Your task to perform on an android device: Add "usb-c to usb-a" to the cart on costco Image 0: 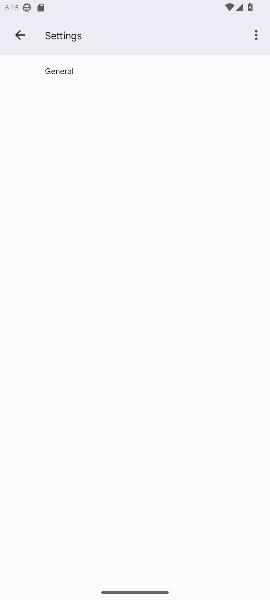
Step 0: press home button
Your task to perform on an android device: Add "usb-c to usb-a" to the cart on costco Image 1: 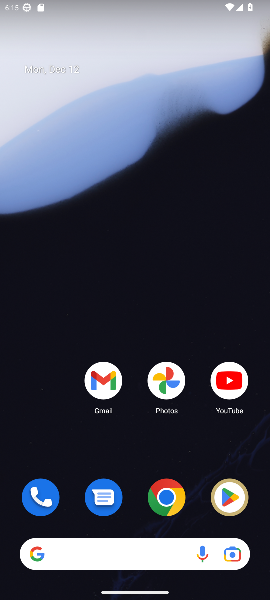
Step 1: drag from (65, 454) to (66, 98)
Your task to perform on an android device: Add "usb-c to usb-a" to the cart on costco Image 2: 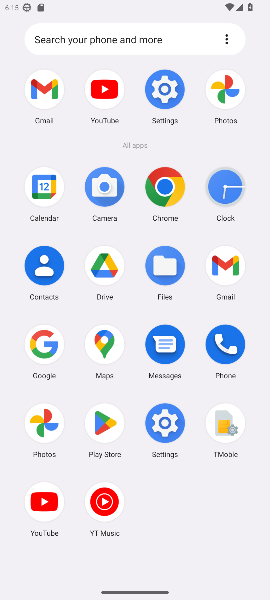
Step 2: click (36, 348)
Your task to perform on an android device: Add "usb-c to usb-a" to the cart on costco Image 3: 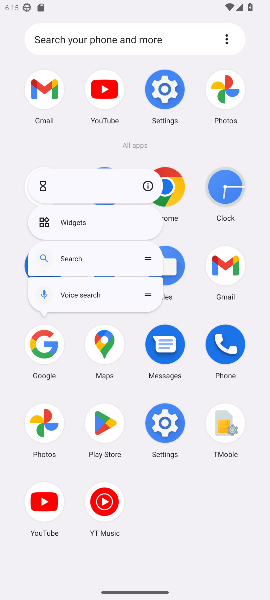
Step 3: click (45, 335)
Your task to perform on an android device: Add "usb-c to usb-a" to the cart on costco Image 4: 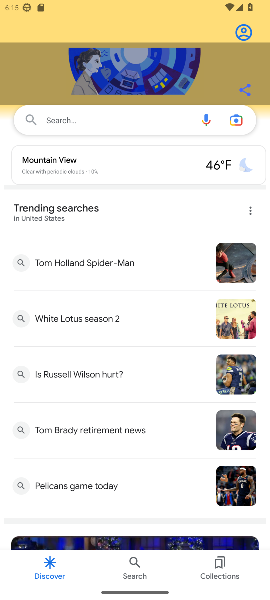
Step 4: click (81, 121)
Your task to perform on an android device: Add "usb-c to usb-a" to the cart on costco Image 5: 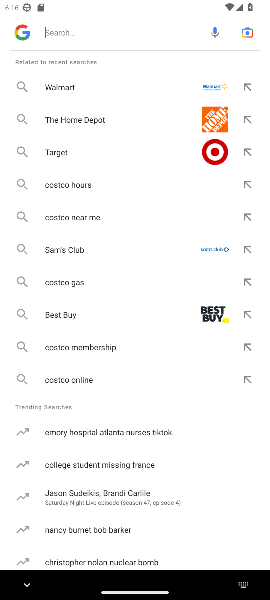
Step 5: type "costco"
Your task to perform on an android device: Add "usb-c to usb-a" to the cart on costco Image 6: 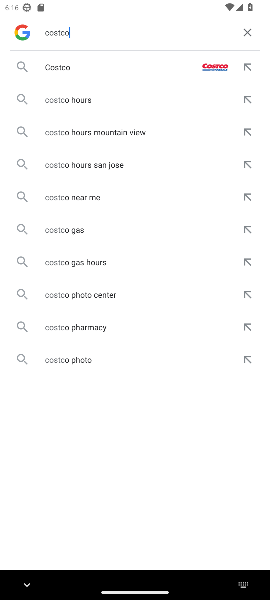
Step 6: press enter
Your task to perform on an android device: Add "usb-c to usb-a" to the cart on costco Image 7: 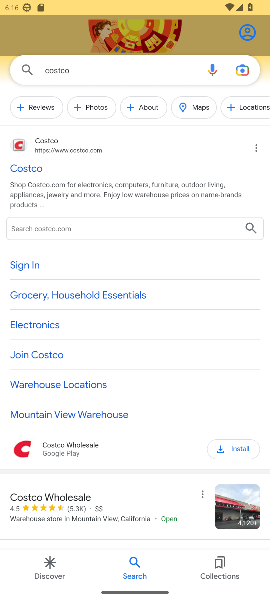
Step 7: click (28, 171)
Your task to perform on an android device: Add "usb-c to usb-a" to the cart on costco Image 8: 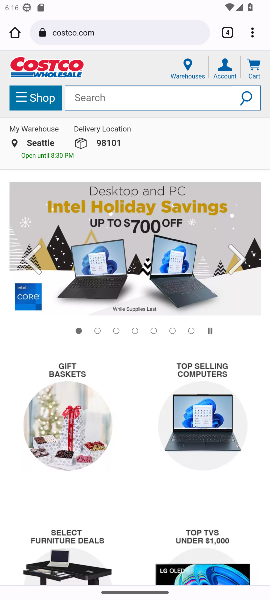
Step 8: click (91, 97)
Your task to perform on an android device: Add "usb-c to usb-a" to the cart on costco Image 9: 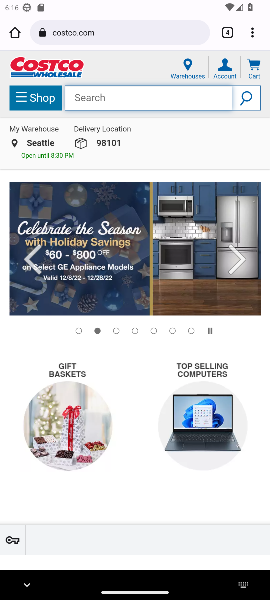
Step 9: type "usb-c to usb-a"
Your task to perform on an android device: Add "usb-c to usb-a" to the cart on costco Image 10: 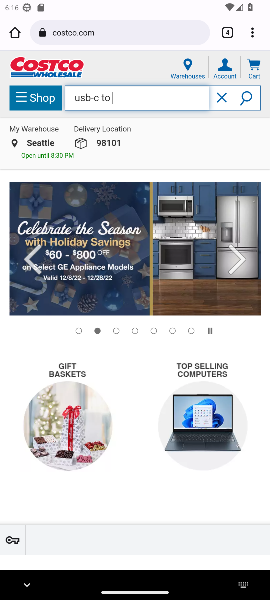
Step 10: press enter
Your task to perform on an android device: Add "usb-c to usb-a" to the cart on costco Image 11: 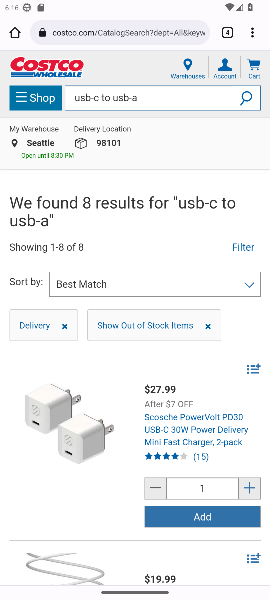
Step 11: task complete